Your task to perform on an android device: Go to network settings Image 0: 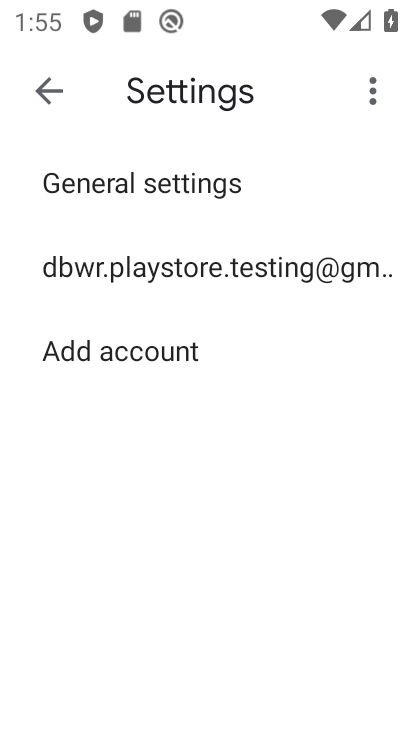
Step 0: press home button
Your task to perform on an android device: Go to network settings Image 1: 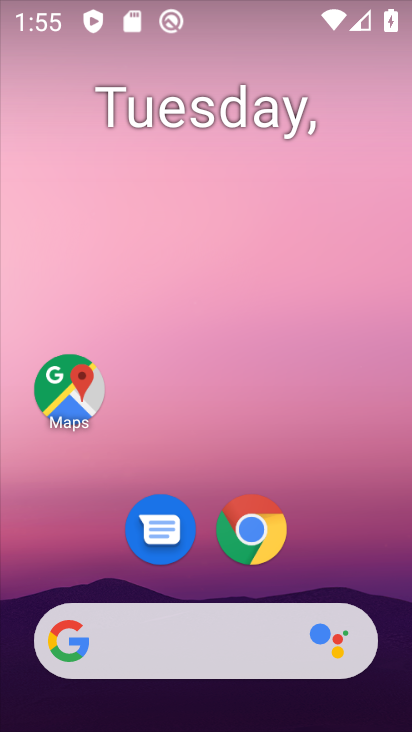
Step 1: drag from (389, 608) to (227, 92)
Your task to perform on an android device: Go to network settings Image 2: 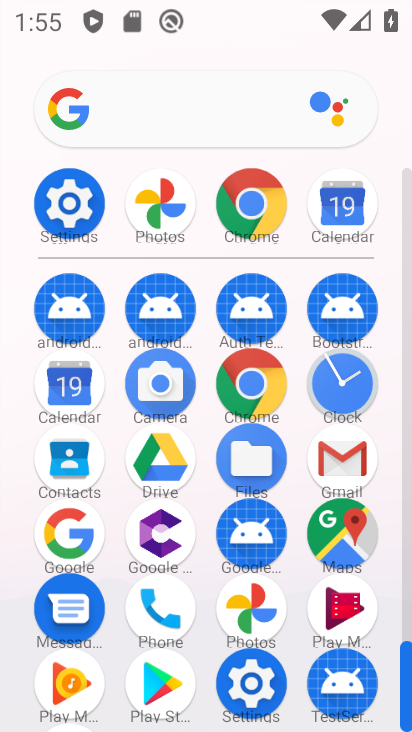
Step 2: click (69, 207)
Your task to perform on an android device: Go to network settings Image 3: 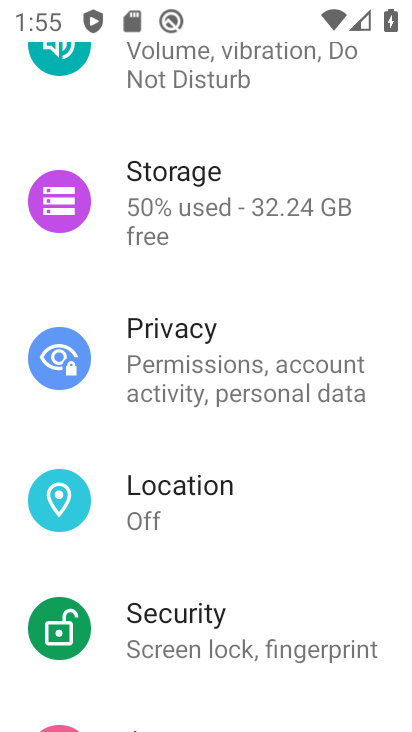
Step 3: drag from (155, 165) to (181, 634)
Your task to perform on an android device: Go to network settings Image 4: 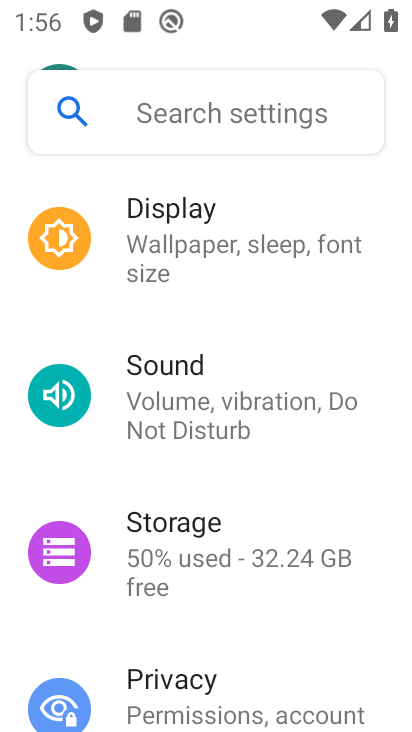
Step 4: drag from (213, 225) to (230, 630)
Your task to perform on an android device: Go to network settings Image 5: 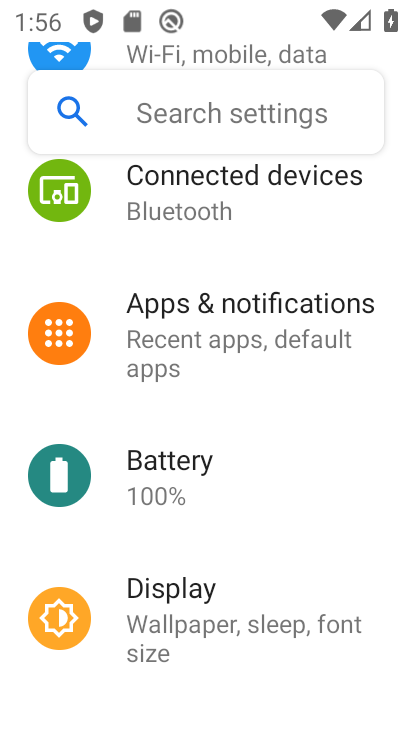
Step 5: drag from (163, 227) to (183, 633)
Your task to perform on an android device: Go to network settings Image 6: 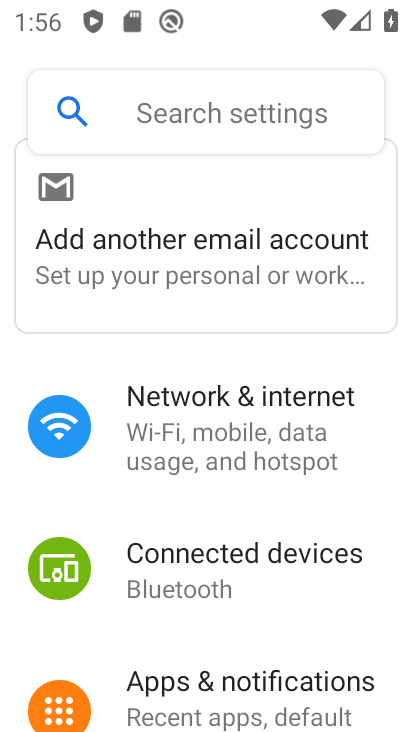
Step 6: click (174, 443)
Your task to perform on an android device: Go to network settings Image 7: 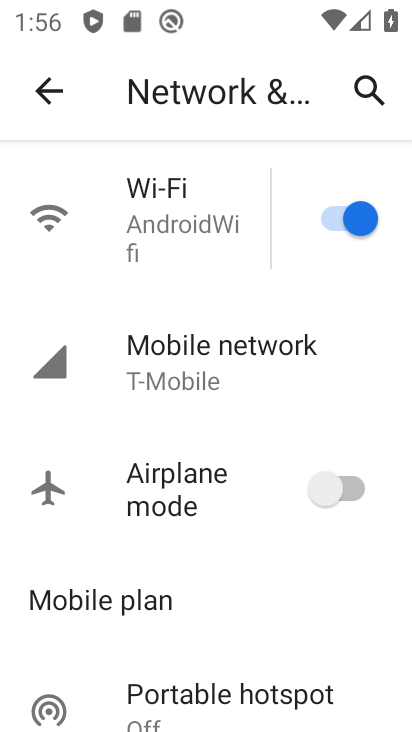
Step 7: task complete